Your task to perform on an android device: change the clock style Image 0: 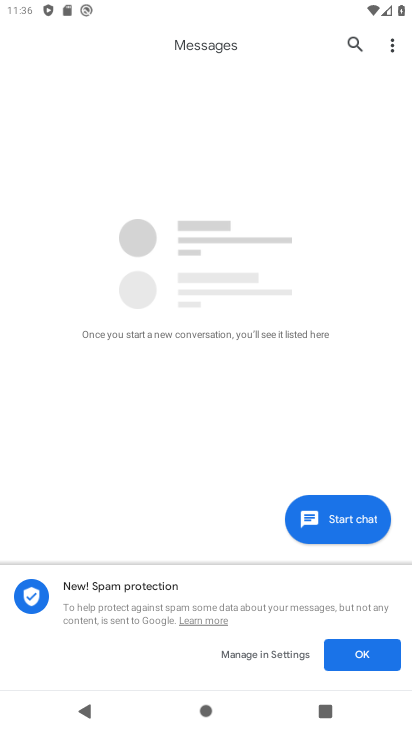
Step 0: press back button
Your task to perform on an android device: change the clock style Image 1: 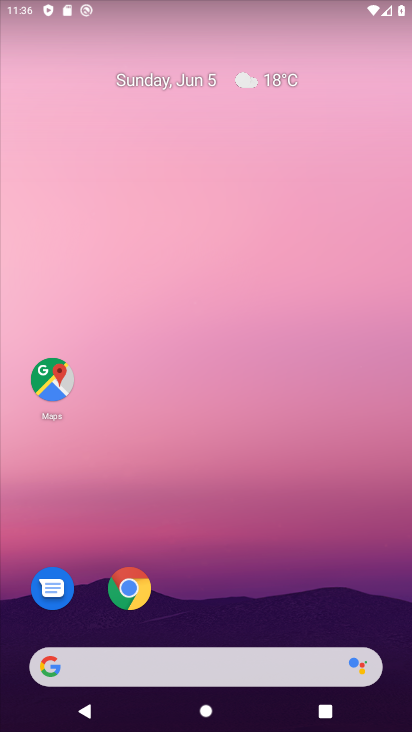
Step 1: drag from (241, 551) to (258, 69)
Your task to perform on an android device: change the clock style Image 2: 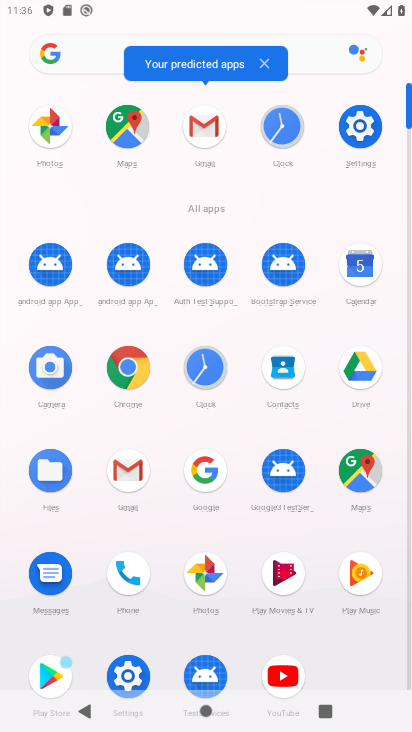
Step 2: click (203, 389)
Your task to perform on an android device: change the clock style Image 3: 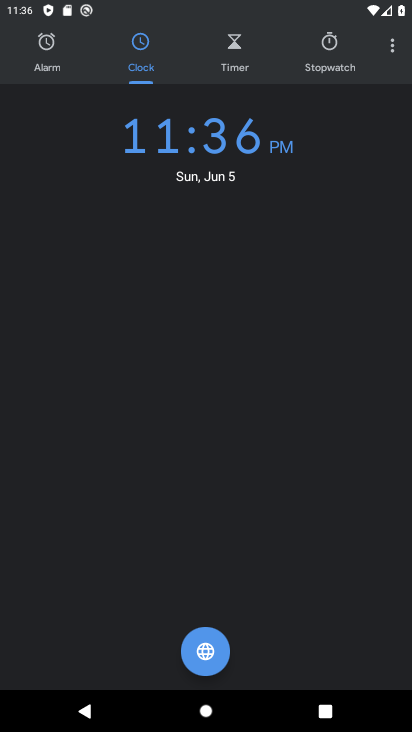
Step 3: click (389, 42)
Your task to perform on an android device: change the clock style Image 4: 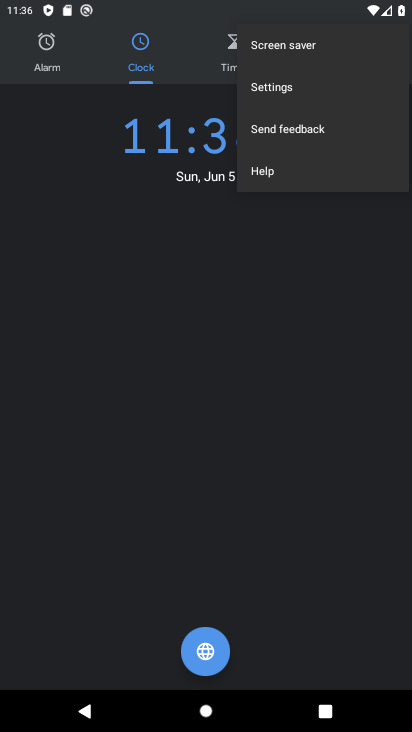
Step 4: click (285, 87)
Your task to perform on an android device: change the clock style Image 5: 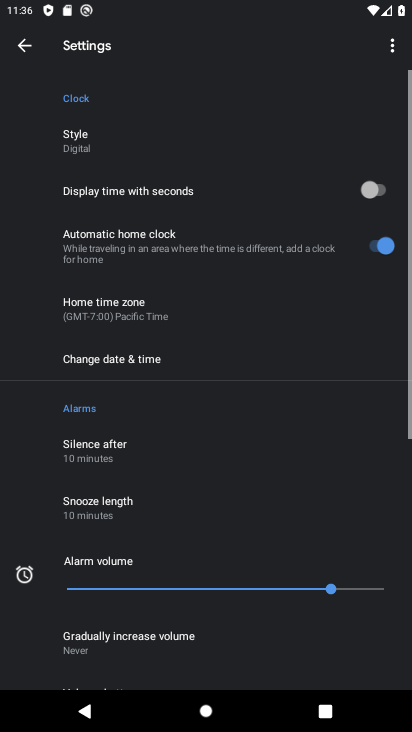
Step 5: click (105, 144)
Your task to perform on an android device: change the clock style Image 6: 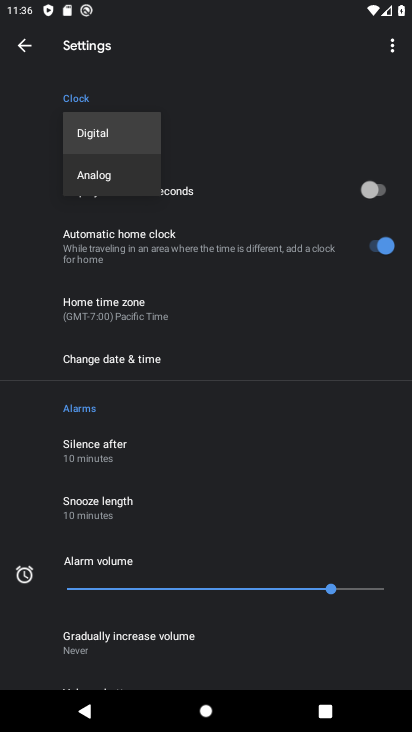
Step 6: click (94, 174)
Your task to perform on an android device: change the clock style Image 7: 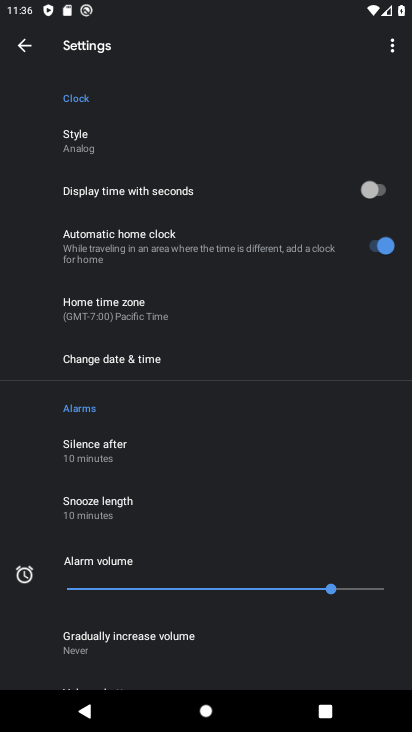
Step 7: task complete